Your task to perform on an android device: Open Google Image 0: 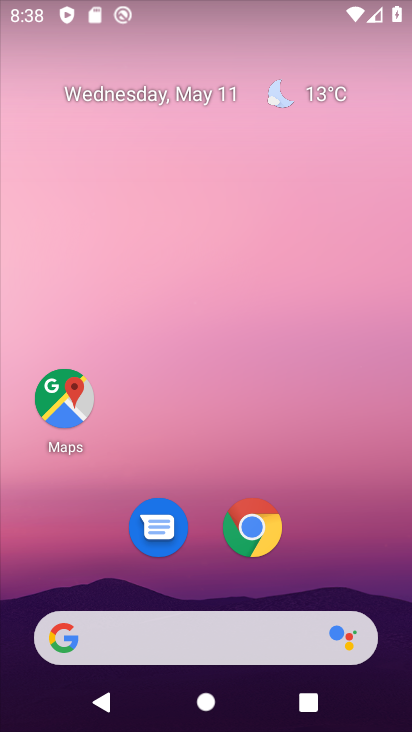
Step 0: drag from (318, 561) to (260, 210)
Your task to perform on an android device: Open Google Image 1: 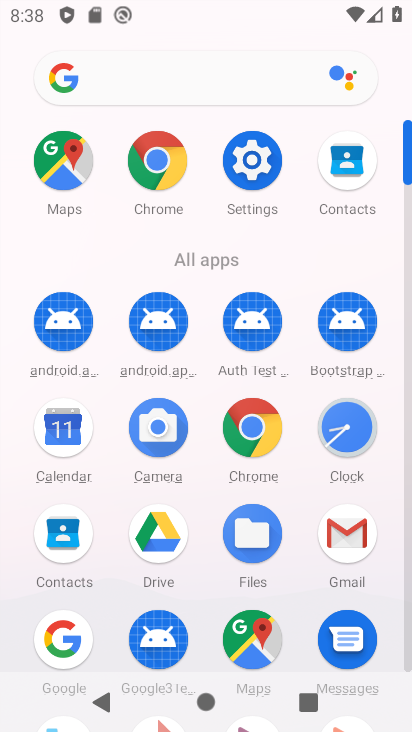
Step 1: click (49, 620)
Your task to perform on an android device: Open Google Image 2: 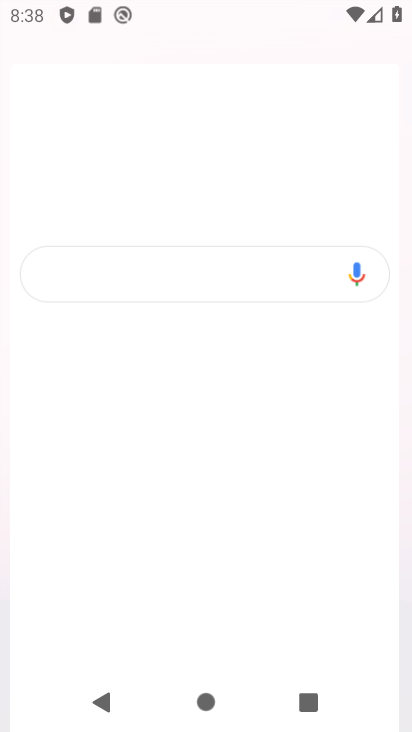
Step 2: task complete